Your task to perform on an android device: change your default location settings in chrome Image 0: 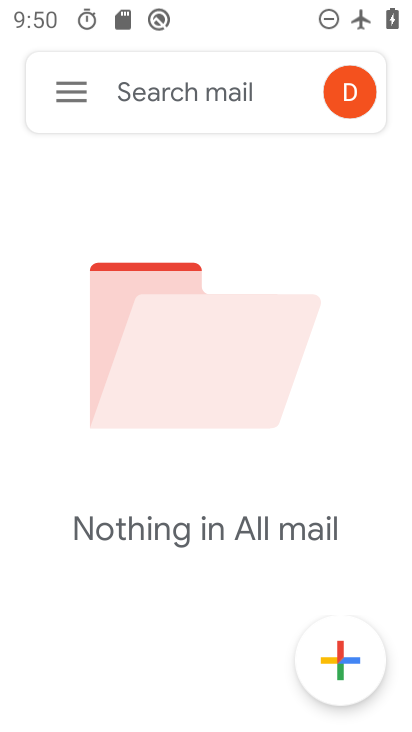
Step 0: click (84, 88)
Your task to perform on an android device: change your default location settings in chrome Image 1: 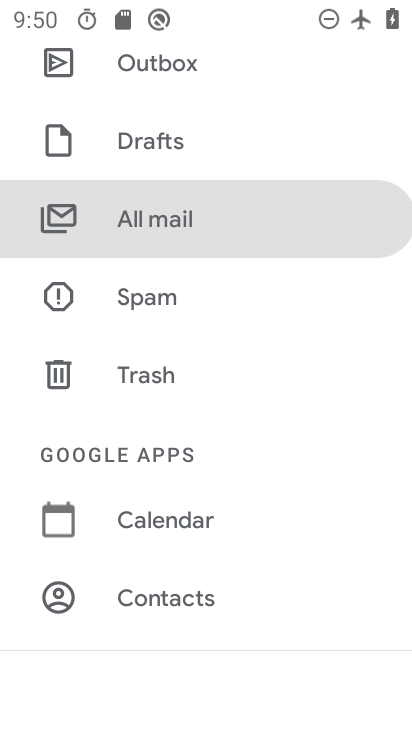
Step 1: drag from (158, 593) to (192, 285)
Your task to perform on an android device: change your default location settings in chrome Image 2: 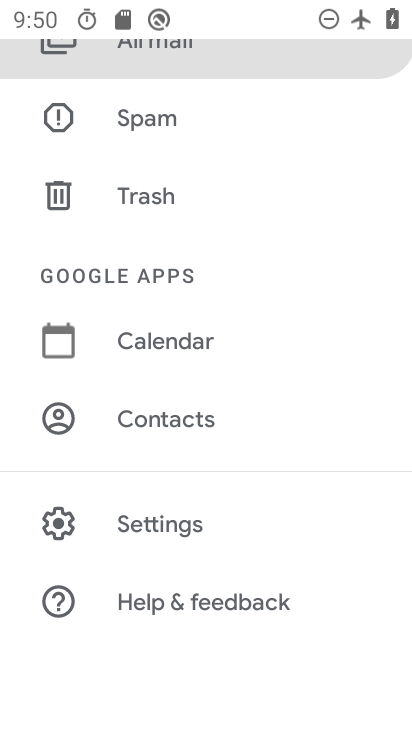
Step 2: press home button
Your task to perform on an android device: change your default location settings in chrome Image 3: 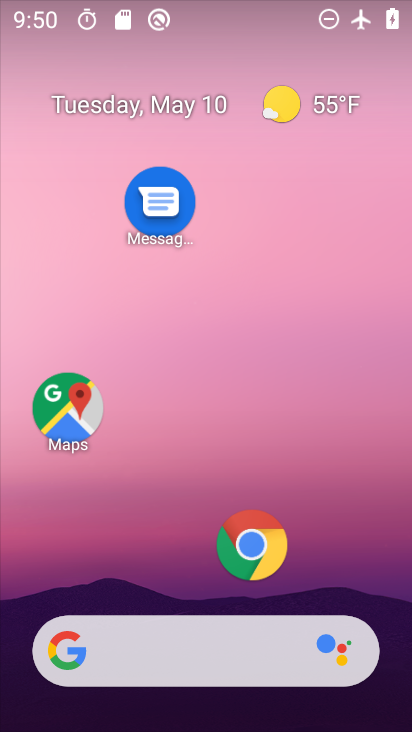
Step 3: click (239, 536)
Your task to perform on an android device: change your default location settings in chrome Image 4: 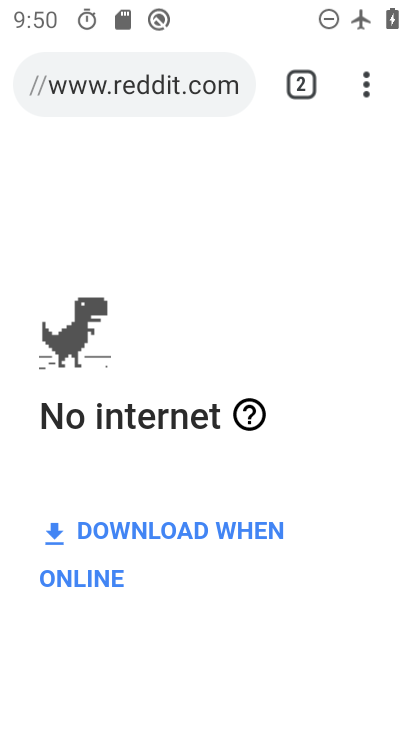
Step 4: drag from (357, 74) to (120, 577)
Your task to perform on an android device: change your default location settings in chrome Image 5: 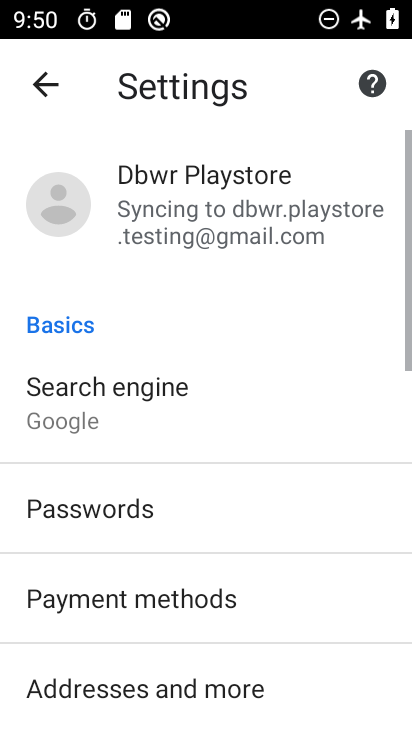
Step 5: drag from (152, 595) to (151, 280)
Your task to perform on an android device: change your default location settings in chrome Image 6: 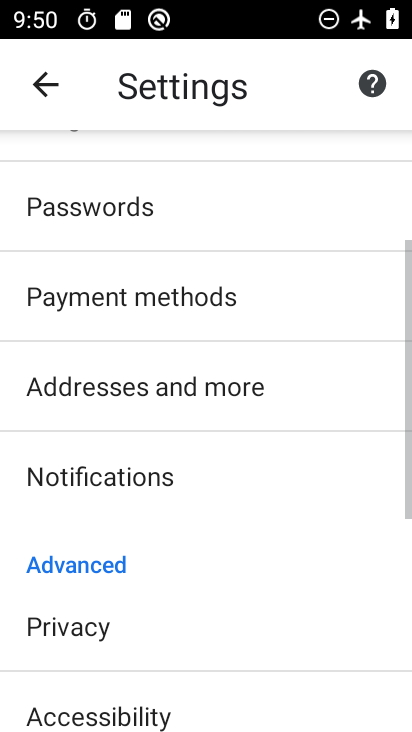
Step 6: drag from (135, 623) to (191, 352)
Your task to perform on an android device: change your default location settings in chrome Image 7: 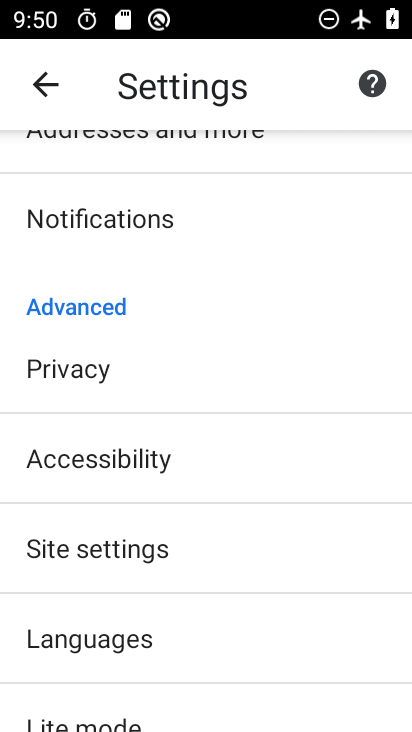
Step 7: click (96, 537)
Your task to perform on an android device: change your default location settings in chrome Image 8: 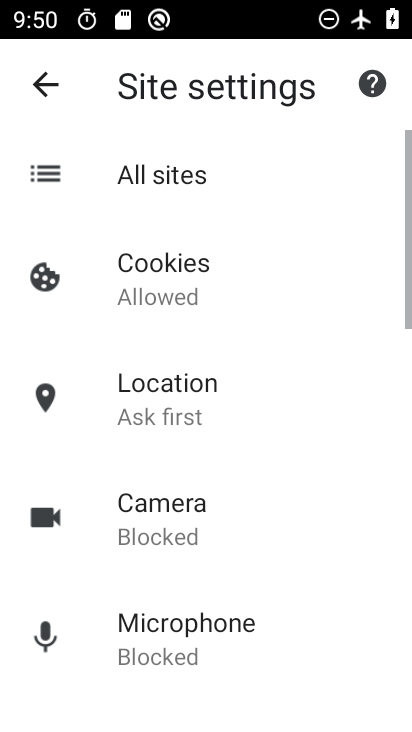
Step 8: click (239, 408)
Your task to perform on an android device: change your default location settings in chrome Image 9: 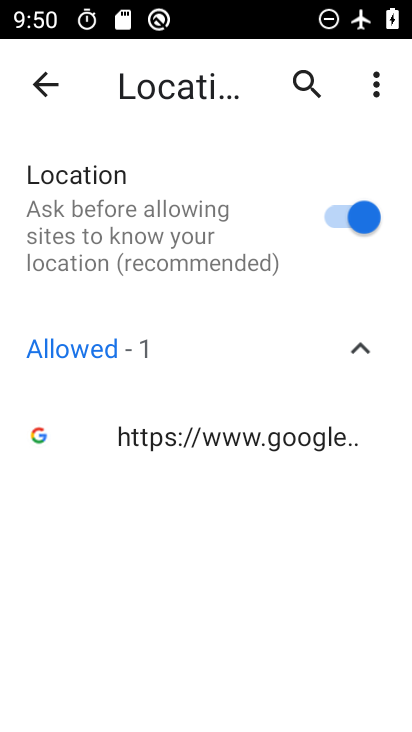
Step 9: click (334, 212)
Your task to perform on an android device: change your default location settings in chrome Image 10: 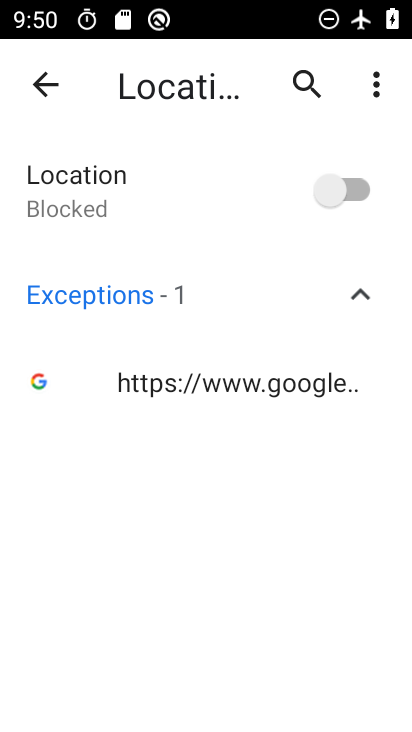
Step 10: task complete